Your task to perform on an android device: check google app version Image 0: 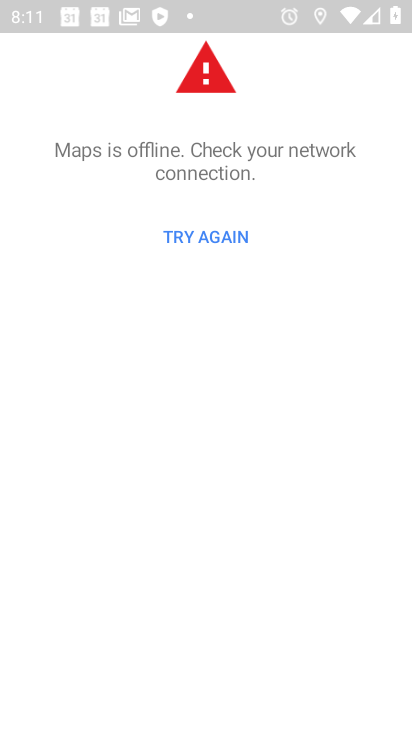
Step 0: press home button
Your task to perform on an android device: check google app version Image 1: 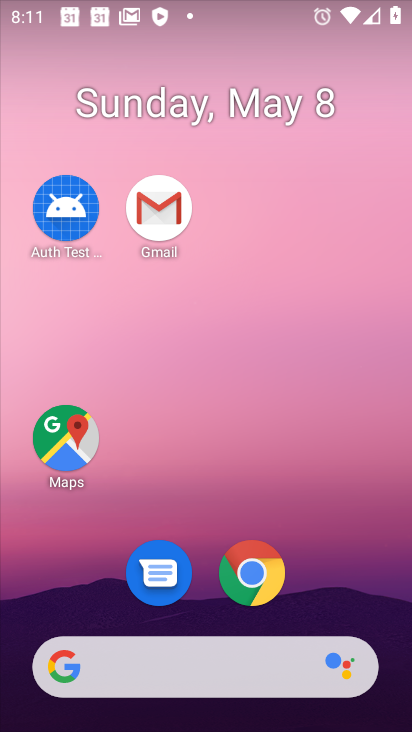
Step 1: drag from (304, 619) to (121, 152)
Your task to perform on an android device: check google app version Image 2: 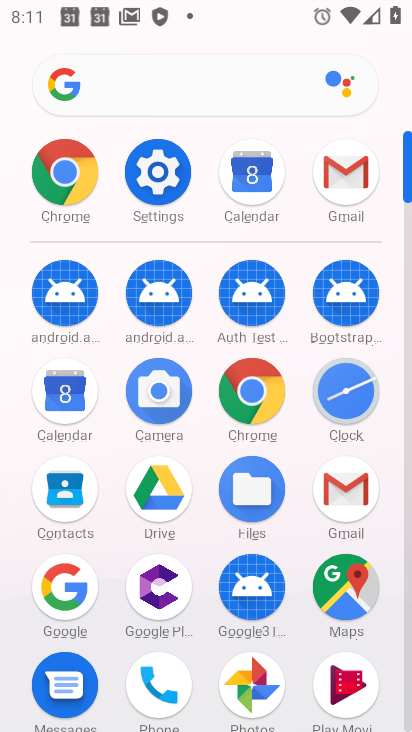
Step 2: click (56, 594)
Your task to perform on an android device: check google app version Image 3: 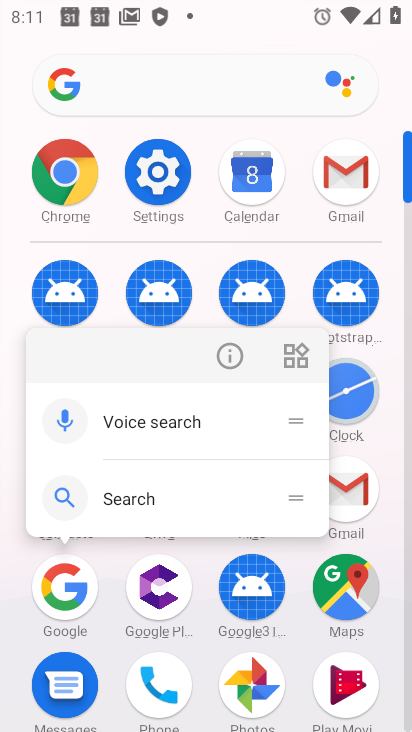
Step 3: click (66, 588)
Your task to perform on an android device: check google app version Image 4: 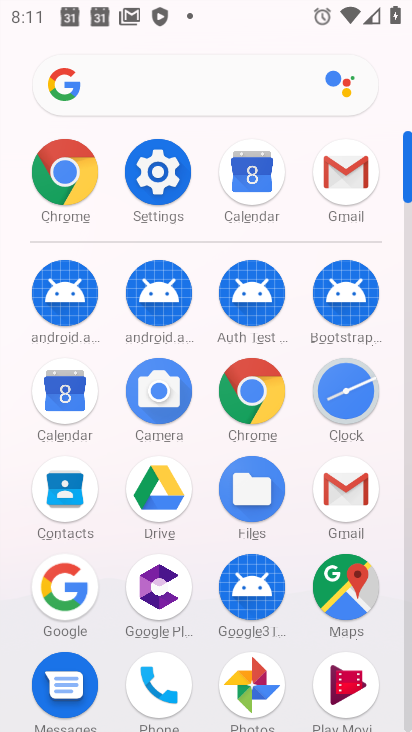
Step 4: click (66, 588)
Your task to perform on an android device: check google app version Image 5: 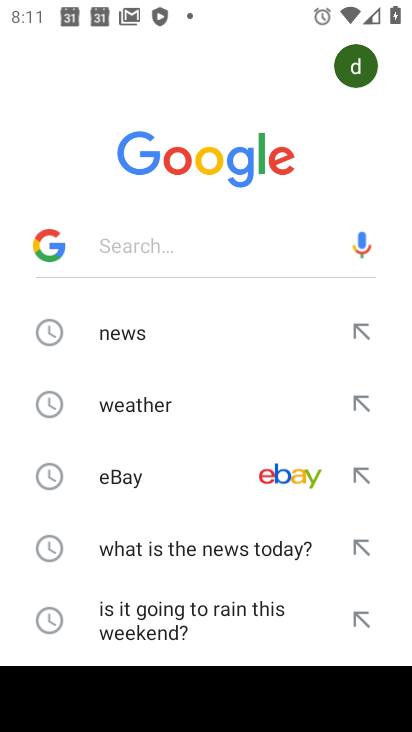
Step 5: drag from (268, 349) to (237, 540)
Your task to perform on an android device: check google app version Image 6: 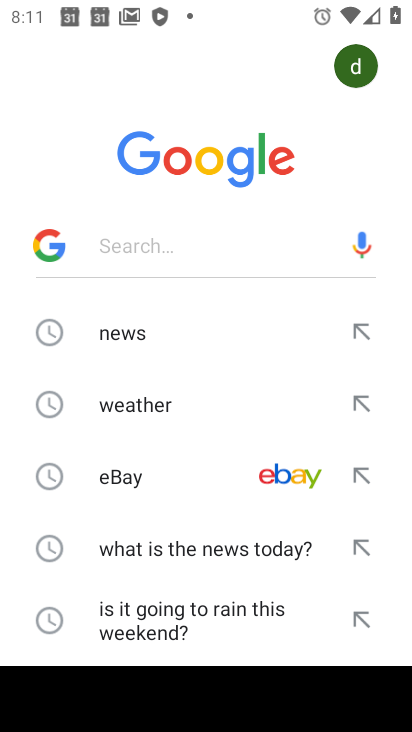
Step 6: drag from (236, 525) to (221, 345)
Your task to perform on an android device: check google app version Image 7: 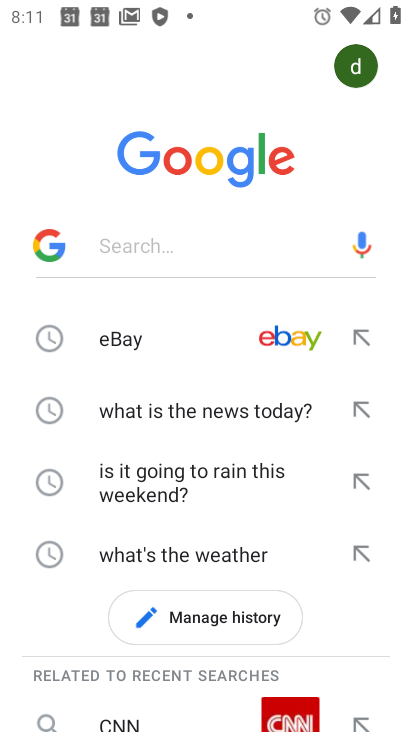
Step 7: drag from (209, 405) to (249, 37)
Your task to perform on an android device: check google app version Image 8: 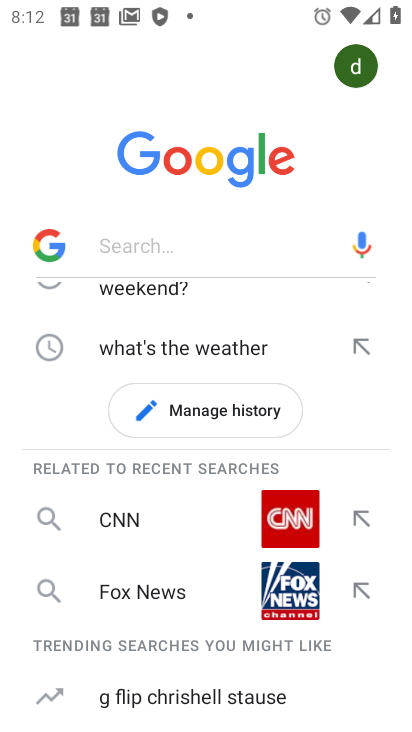
Step 8: drag from (164, 317) to (164, 588)
Your task to perform on an android device: check google app version Image 9: 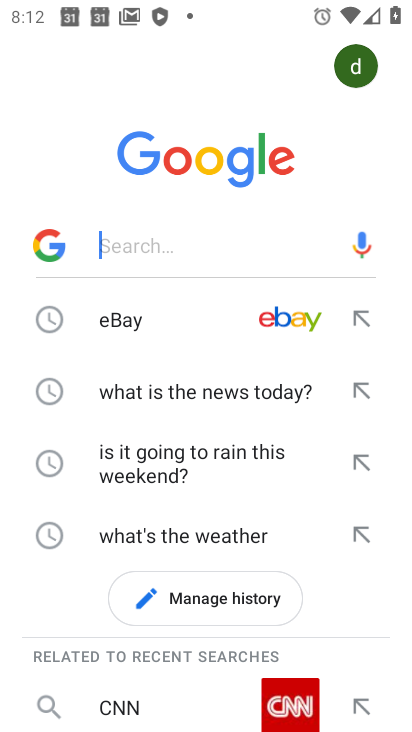
Step 9: drag from (77, 404) to (51, 713)
Your task to perform on an android device: check google app version Image 10: 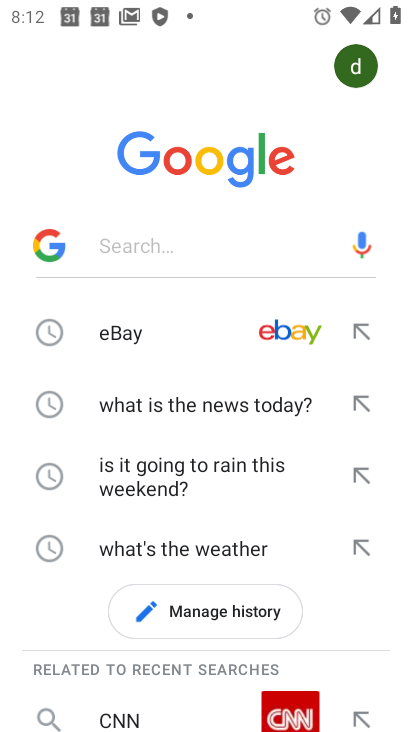
Step 10: press back button
Your task to perform on an android device: check google app version Image 11: 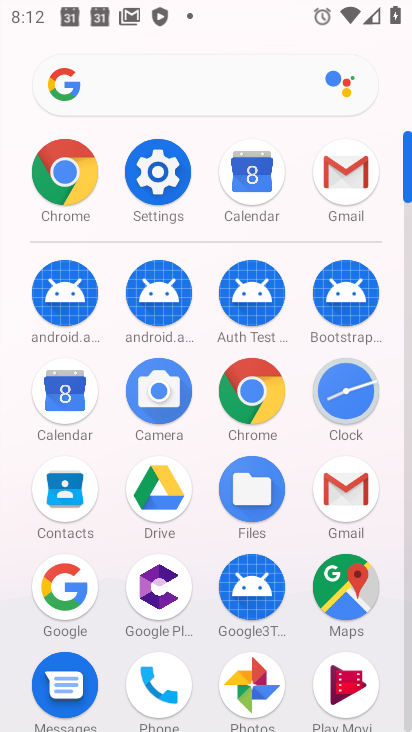
Step 11: click (73, 596)
Your task to perform on an android device: check google app version Image 12: 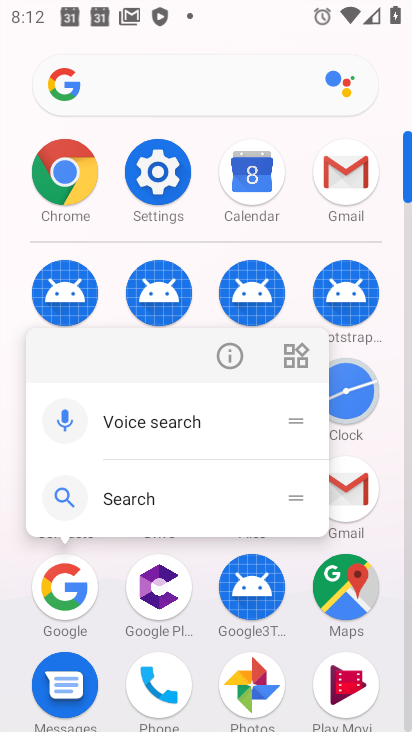
Step 12: click (32, 598)
Your task to perform on an android device: check google app version Image 13: 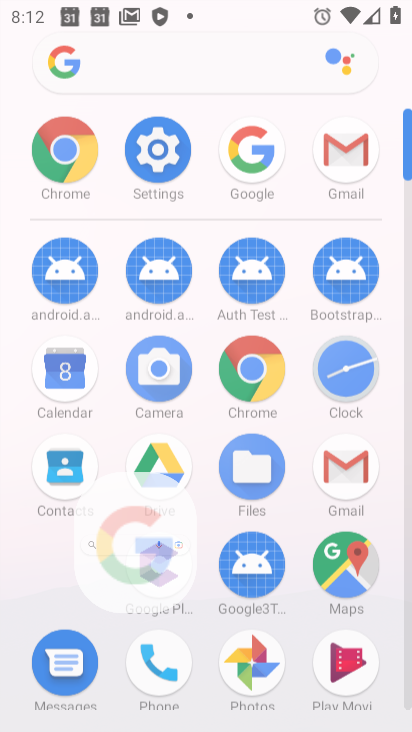
Step 13: click (48, 595)
Your task to perform on an android device: check google app version Image 14: 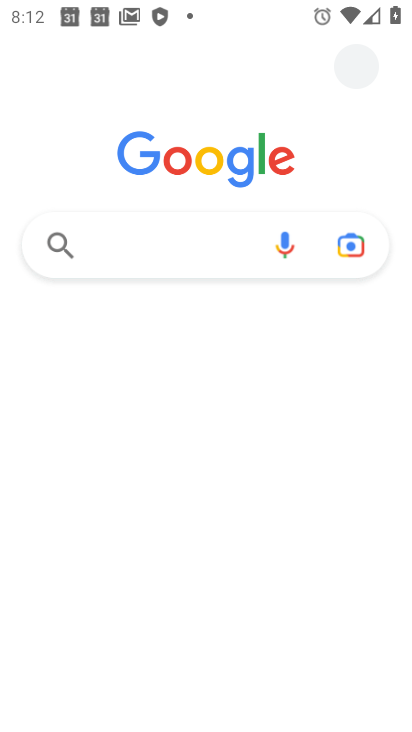
Step 14: click (61, 593)
Your task to perform on an android device: check google app version Image 15: 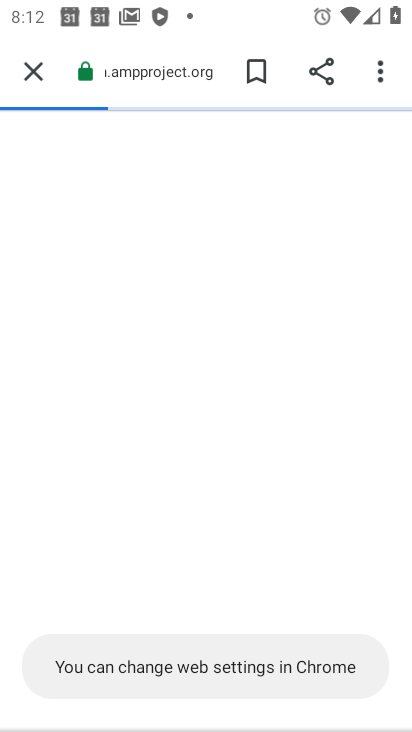
Step 15: click (350, 693)
Your task to perform on an android device: check google app version Image 16: 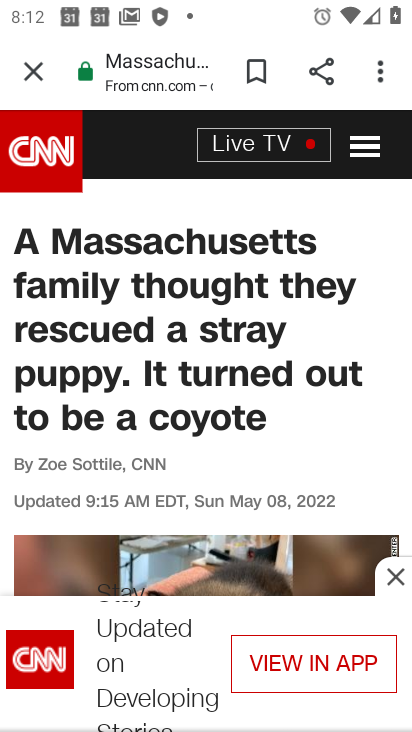
Step 16: click (31, 70)
Your task to perform on an android device: check google app version Image 17: 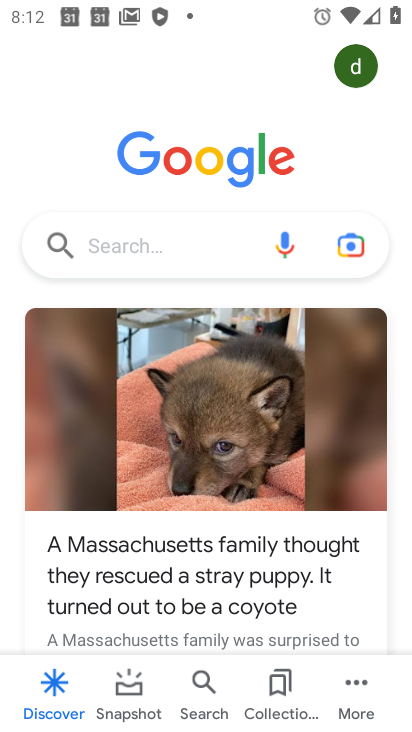
Step 17: click (343, 706)
Your task to perform on an android device: check google app version Image 18: 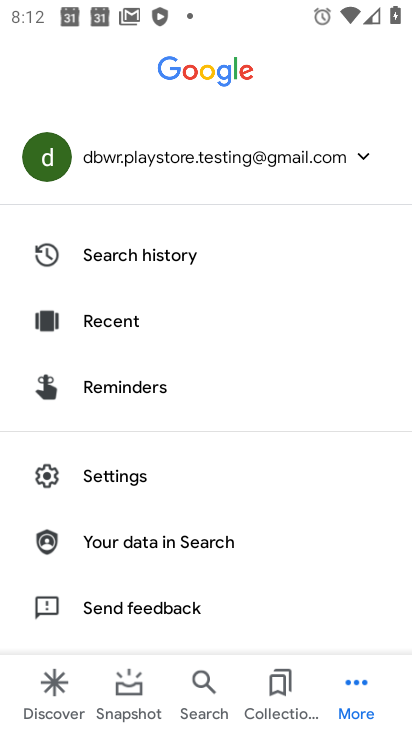
Step 18: click (352, 709)
Your task to perform on an android device: check google app version Image 19: 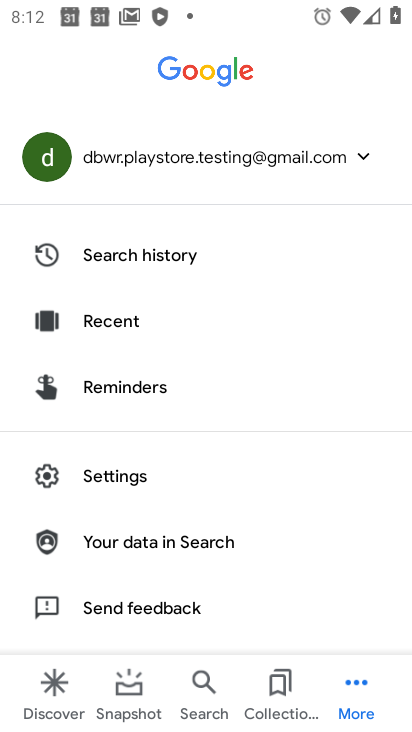
Step 19: drag from (154, 600) to (109, 142)
Your task to perform on an android device: check google app version Image 20: 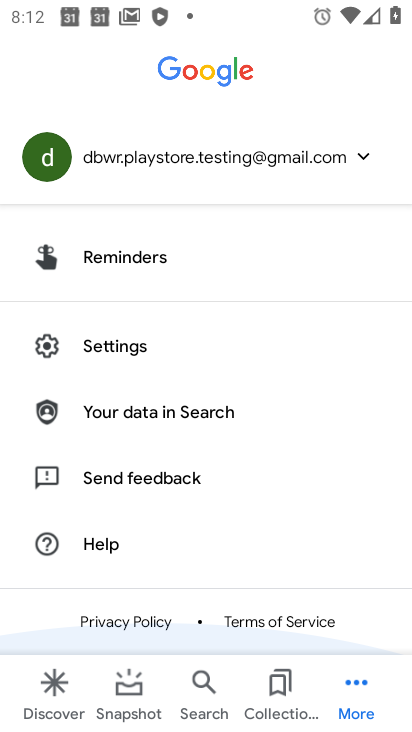
Step 20: drag from (228, 511) to (343, 209)
Your task to perform on an android device: check google app version Image 21: 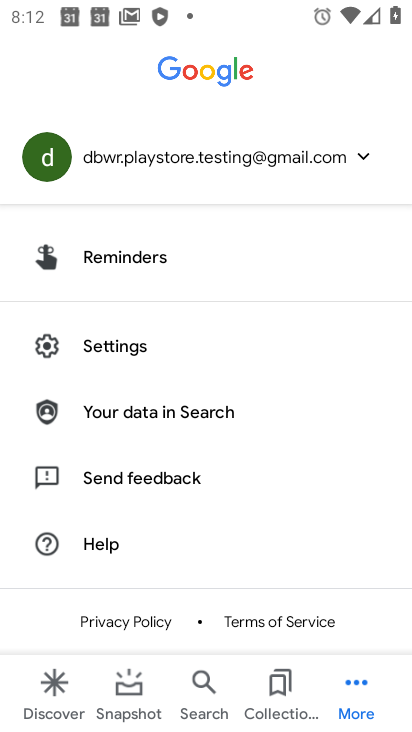
Step 21: click (112, 333)
Your task to perform on an android device: check google app version Image 22: 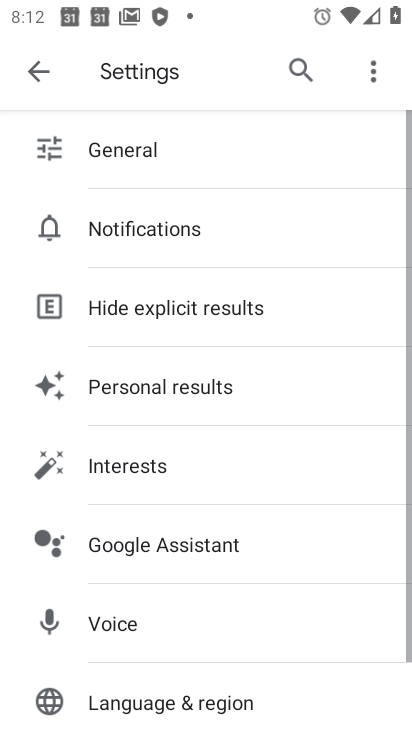
Step 22: drag from (181, 650) to (181, 126)
Your task to perform on an android device: check google app version Image 23: 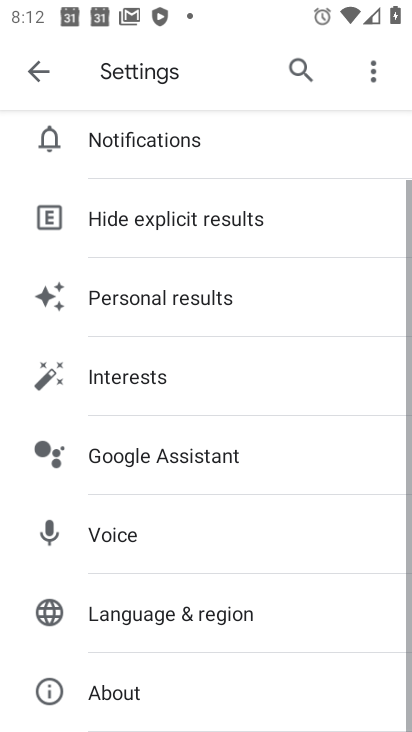
Step 23: drag from (157, 547) to (174, 161)
Your task to perform on an android device: check google app version Image 24: 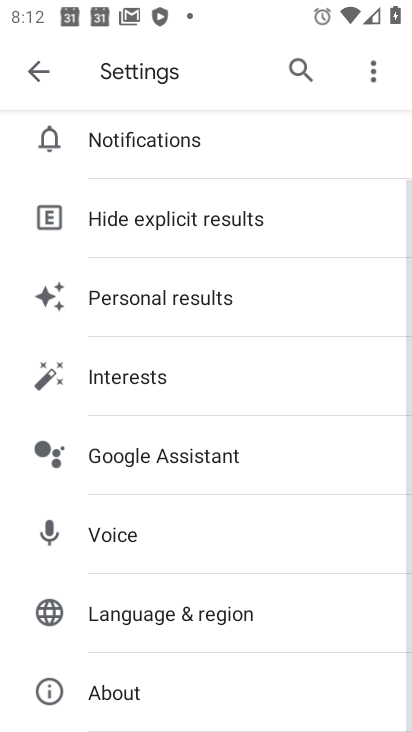
Step 24: click (109, 687)
Your task to perform on an android device: check google app version Image 25: 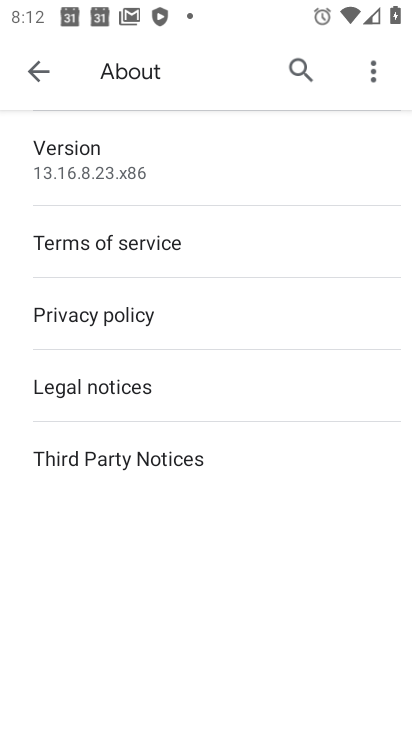
Step 25: task complete